Your task to perform on an android device: clear all cookies in the chrome app Image 0: 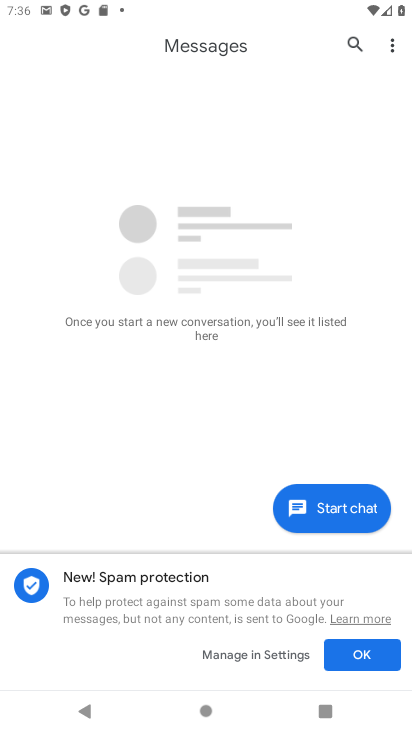
Step 0: press home button
Your task to perform on an android device: clear all cookies in the chrome app Image 1: 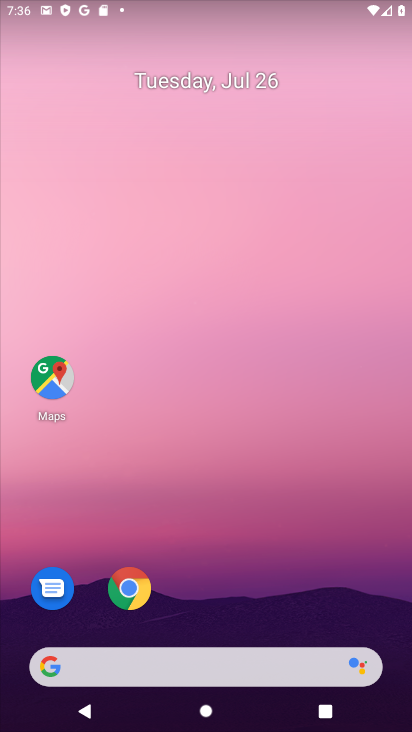
Step 1: drag from (199, 695) to (199, 173)
Your task to perform on an android device: clear all cookies in the chrome app Image 2: 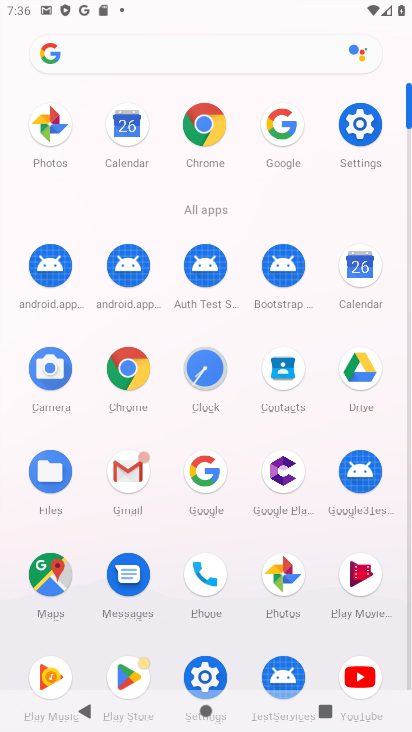
Step 2: click (221, 126)
Your task to perform on an android device: clear all cookies in the chrome app Image 3: 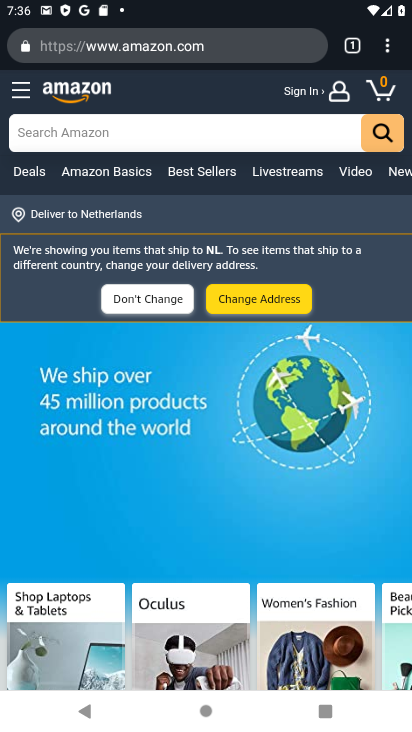
Step 3: click (389, 53)
Your task to perform on an android device: clear all cookies in the chrome app Image 4: 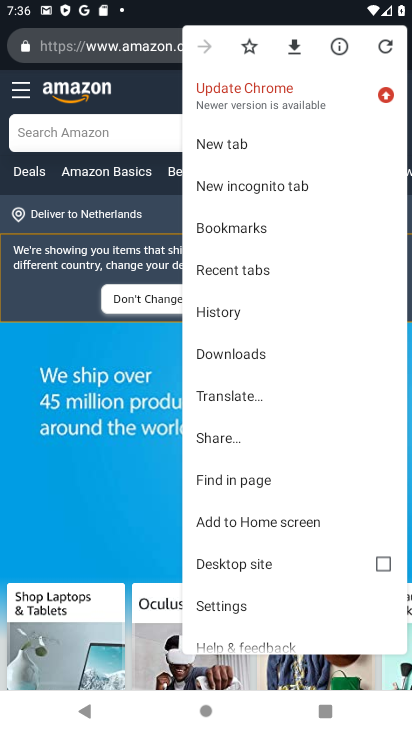
Step 4: click (234, 305)
Your task to perform on an android device: clear all cookies in the chrome app Image 5: 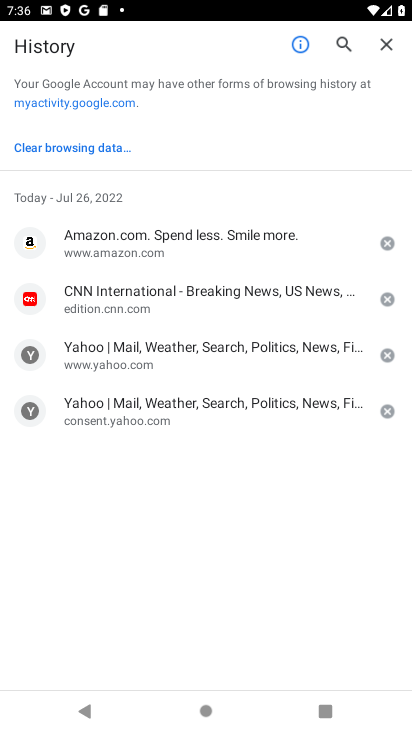
Step 5: click (62, 142)
Your task to perform on an android device: clear all cookies in the chrome app Image 6: 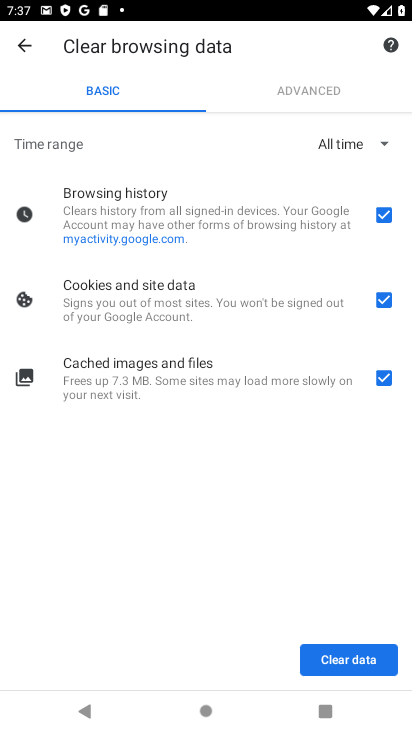
Step 6: click (386, 219)
Your task to perform on an android device: clear all cookies in the chrome app Image 7: 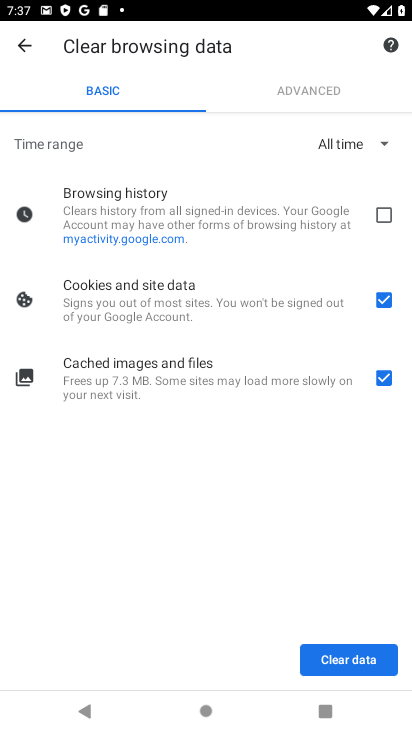
Step 7: click (384, 382)
Your task to perform on an android device: clear all cookies in the chrome app Image 8: 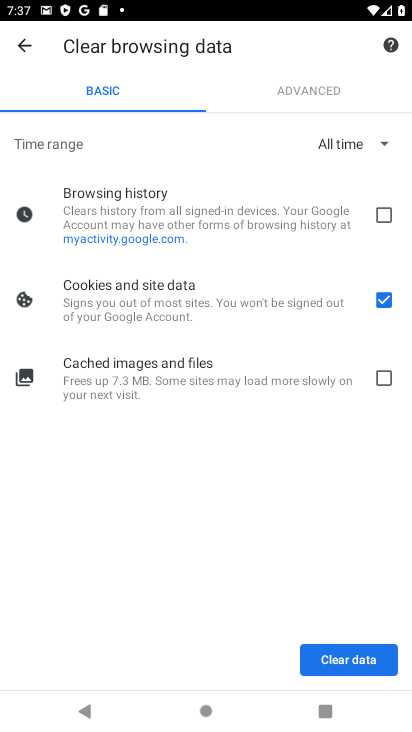
Step 8: click (376, 652)
Your task to perform on an android device: clear all cookies in the chrome app Image 9: 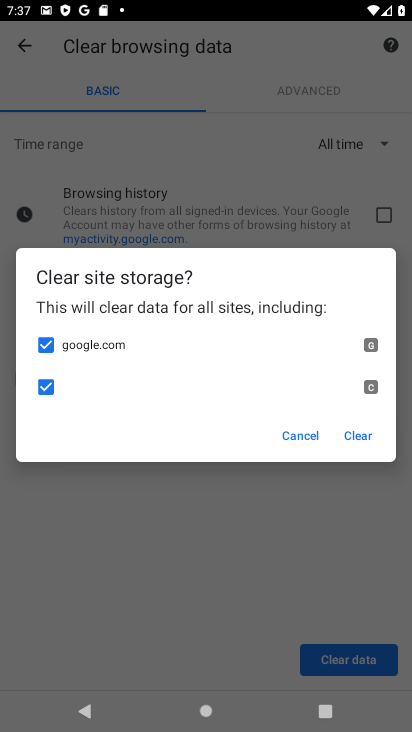
Step 9: click (356, 437)
Your task to perform on an android device: clear all cookies in the chrome app Image 10: 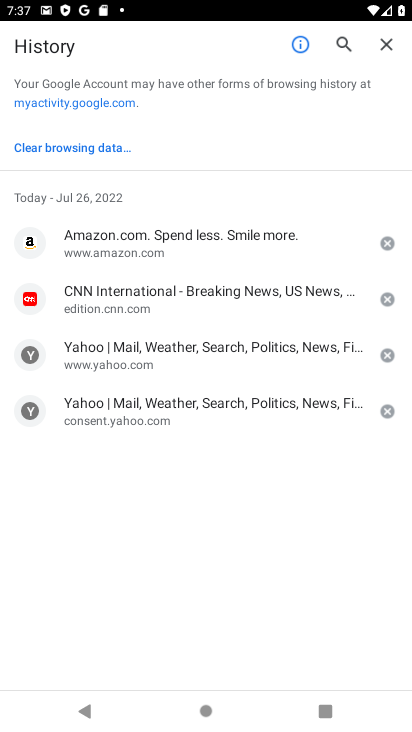
Step 10: task complete